Your task to perform on an android device: What's on my calendar today? Image 0: 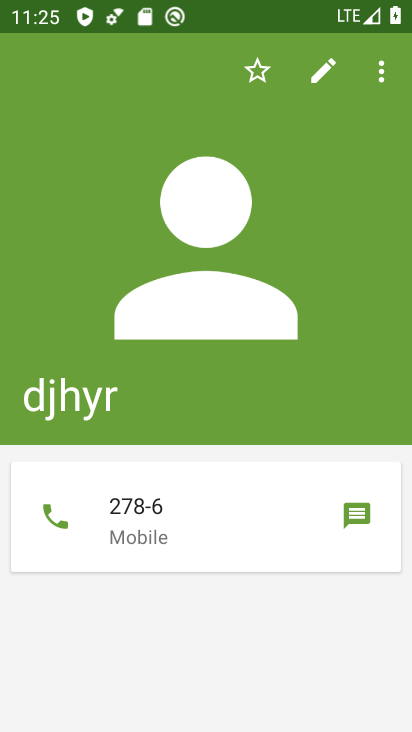
Step 0: press home button
Your task to perform on an android device: What's on my calendar today? Image 1: 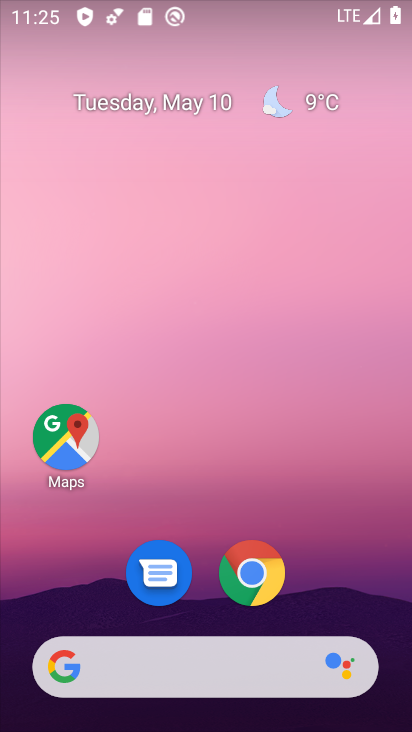
Step 1: drag from (176, 666) to (313, 187)
Your task to perform on an android device: What's on my calendar today? Image 2: 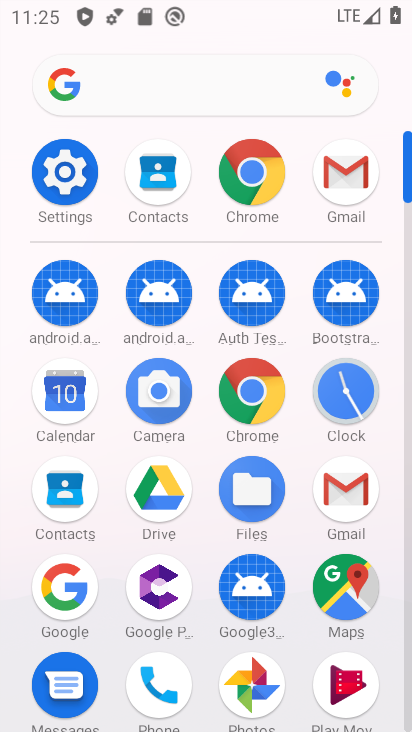
Step 2: click (57, 391)
Your task to perform on an android device: What's on my calendar today? Image 3: 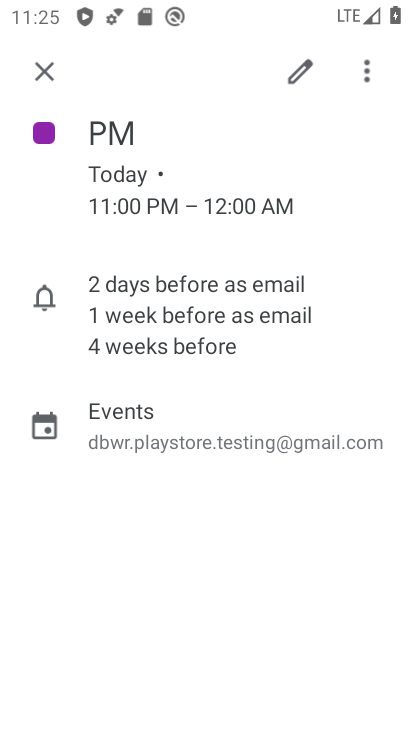
Step 3: click (39, 78)
Your task to perform on an android device: What's on my calendar today? Image 4: 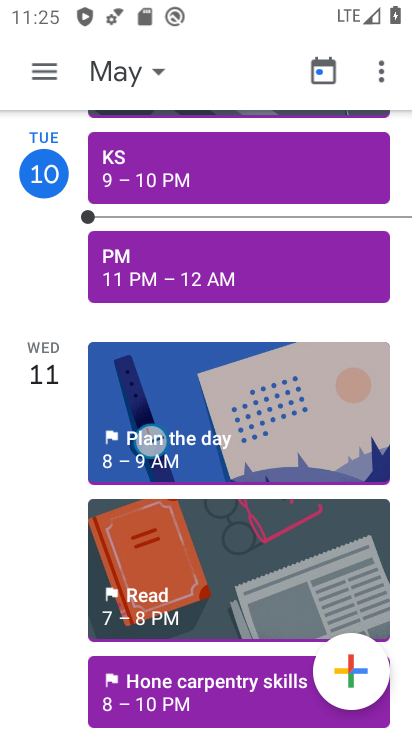
Step 4: click (190, 269)
Your task to perform on an android device: What's on my calendar today? Image 5: 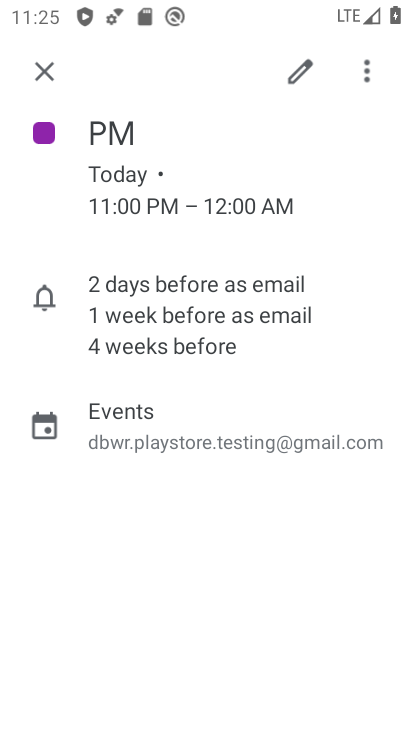
Step 5: task complete